Your task to perform on an android device: delete the emails in spam in the gmail app Image 0: 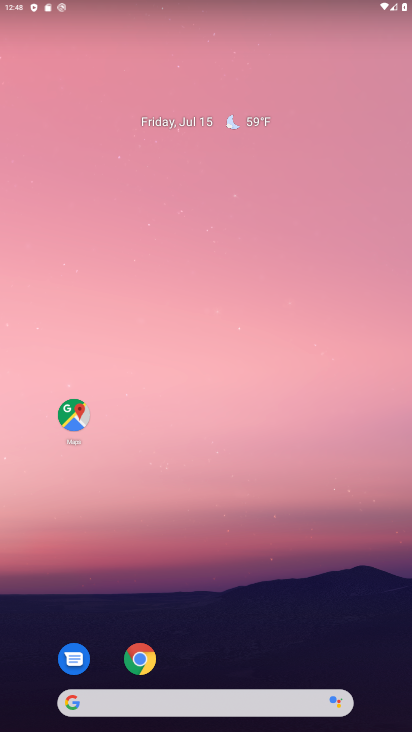
Step 0: drag from (222, 648) to (236, 198)
Your task to perform on an android device: delete the emails in spam in the gmail app Image 1: 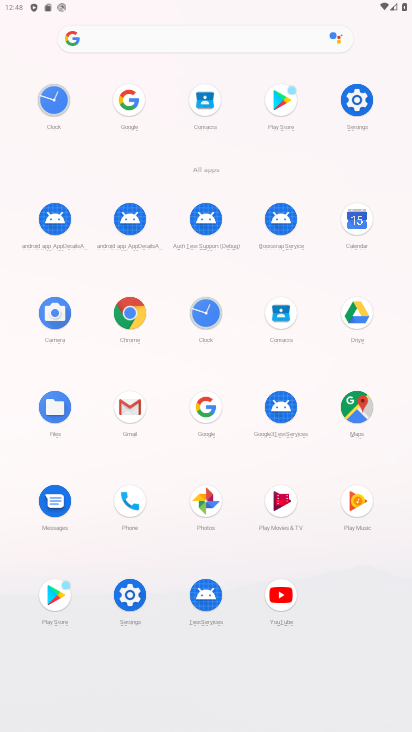
Step 1: click (129, 408)
Your task to perform on an android device: delete the emails in spam in the gmail app Image 2: 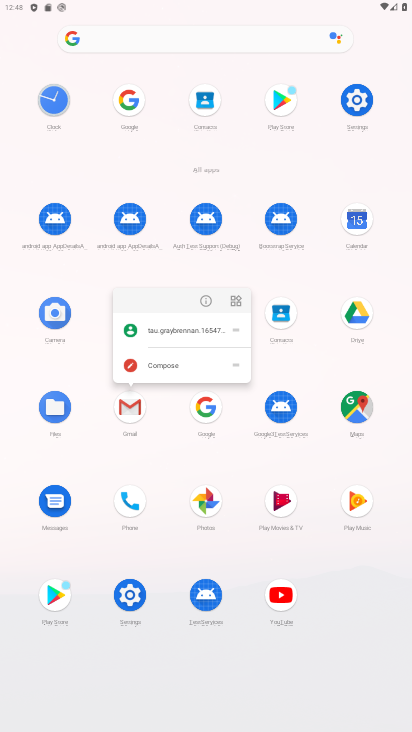
Step 2: click (129, 408)
Your task to perform on an android device: delete the emails in spam in the gmail app Image 3: 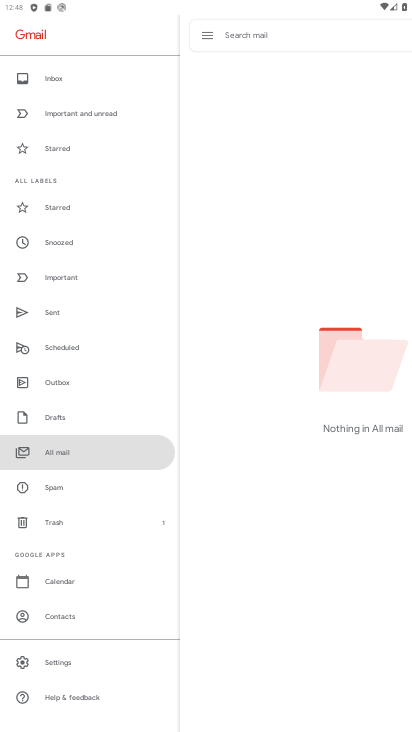
Step 3: click (55, 490)
Your task to perform on an android device: delete the emails in spam in the gmail app Image 4: 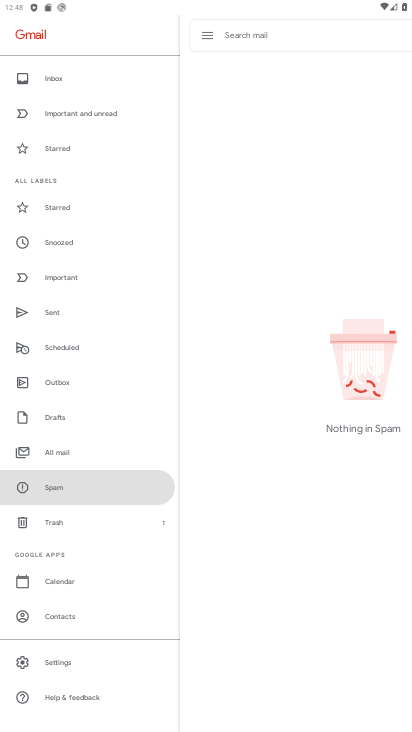
Step 4: task complete